Your task to perform on an android device: Open privacy settings Image 0: 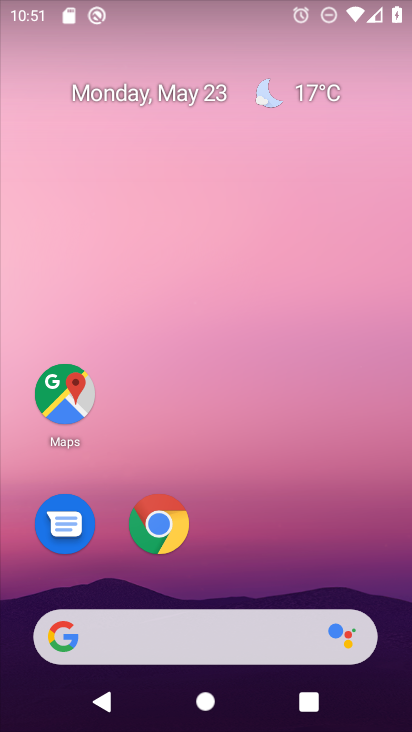
Step 0: drag from (215, 589) to (218, 167)
Your task to perform on an android device: Open privacy settings Image 1: 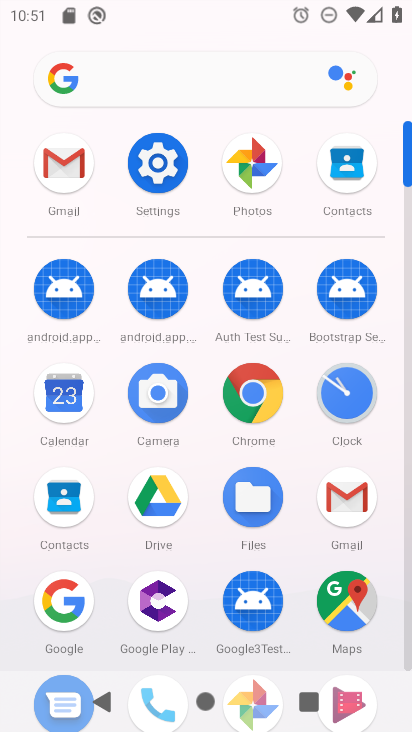
Step 1: click (159, 198)
Your task to perform on an android device: Open privacy settings Image 2: 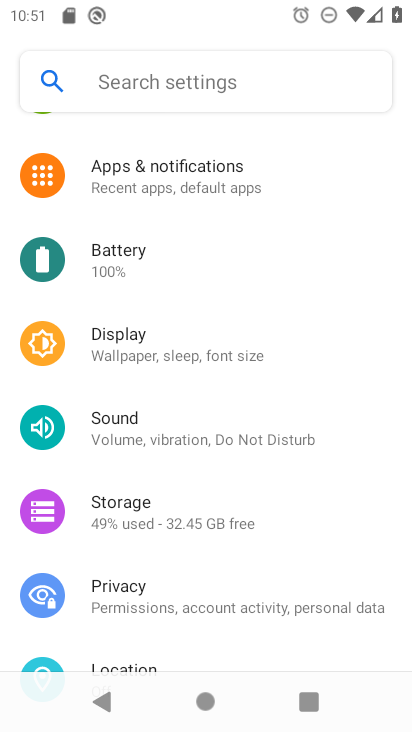
Step 2: click (140, 588)
Your task to perform on an android device: Open privacy settings Image 3: 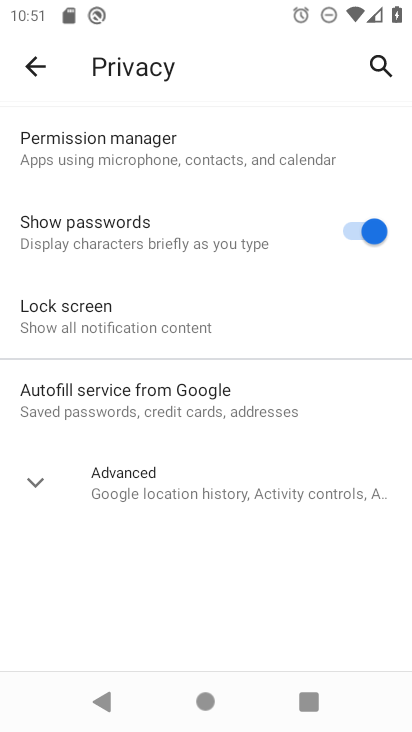
Step 3: task complete